Your task to perform on an android device: open app "Google Chrome" Image 0: 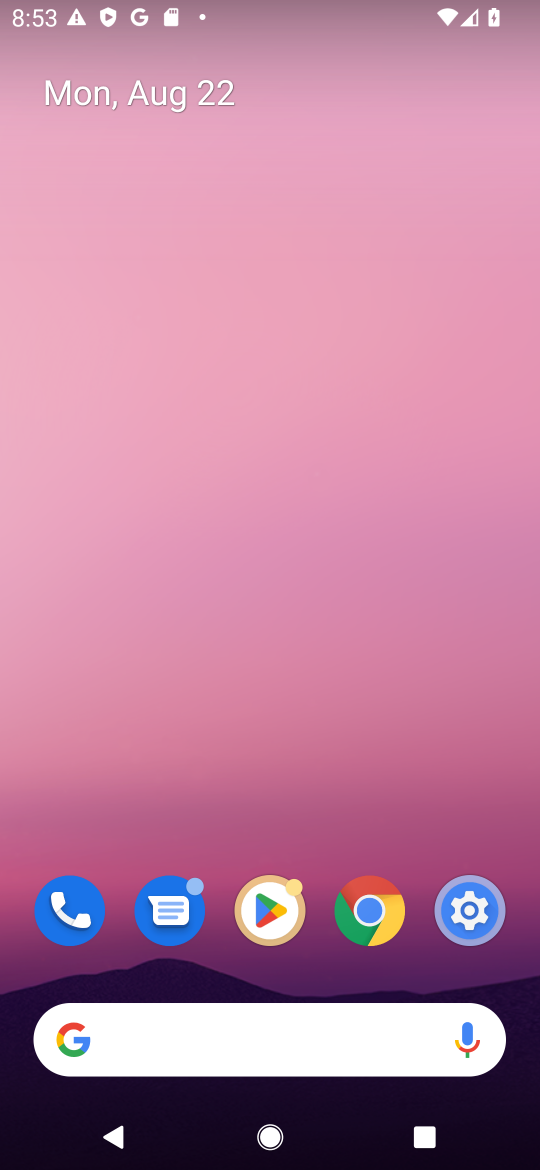
Step 0: click (360, 907)
Your task to perform on an android device: open app "Google Chrome" Image 1: 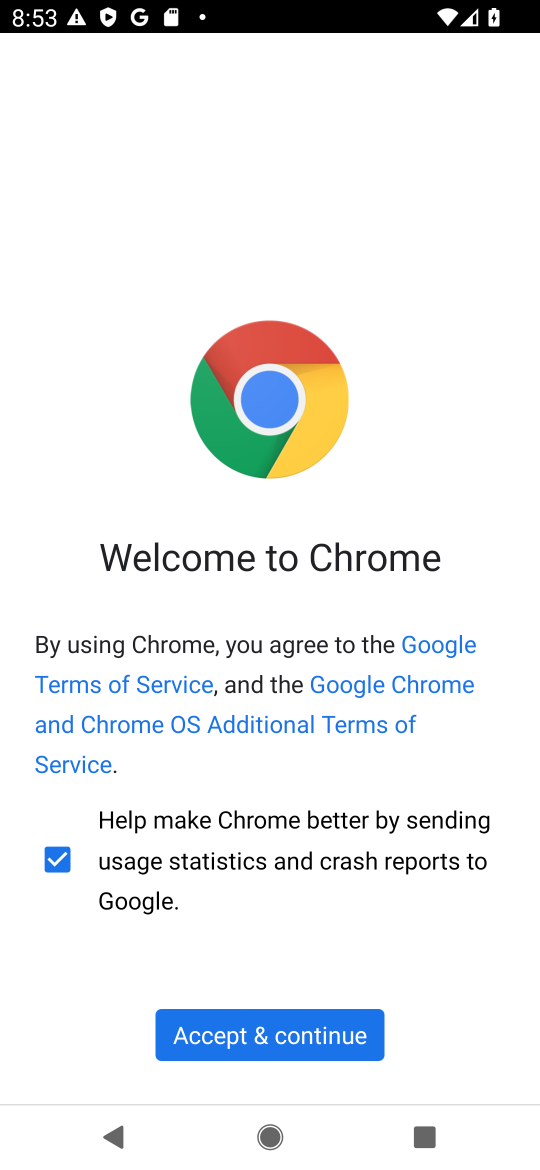
Step 1: click (306, 1046)
Your task to perform on an android device: open app "Google Chrome" Image 2: 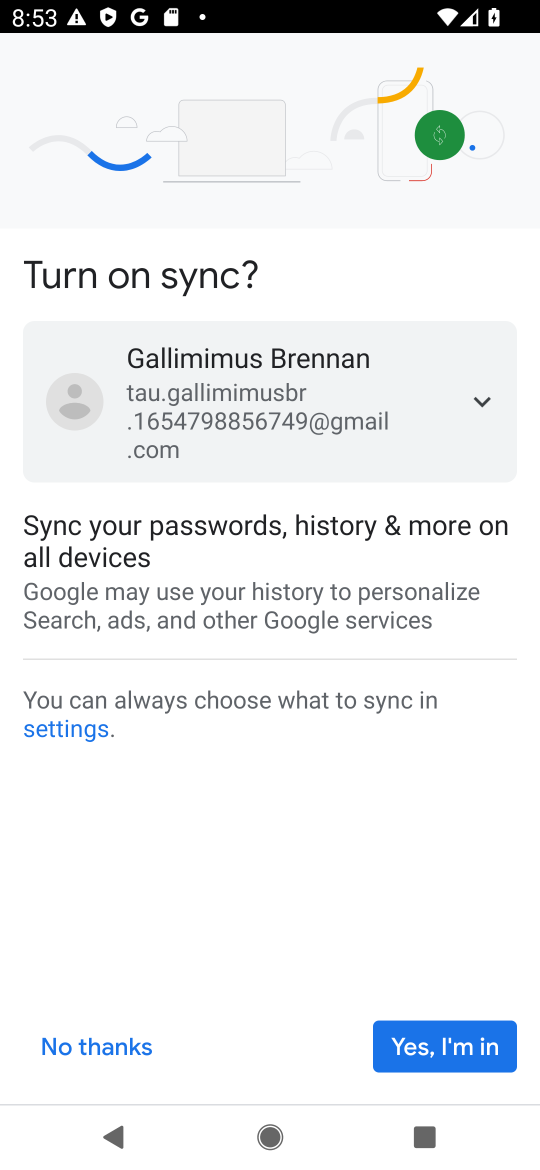
Step 2: click (393, 1034)
Your task to perform on an android device: open app "Google Chrome" Image 3: 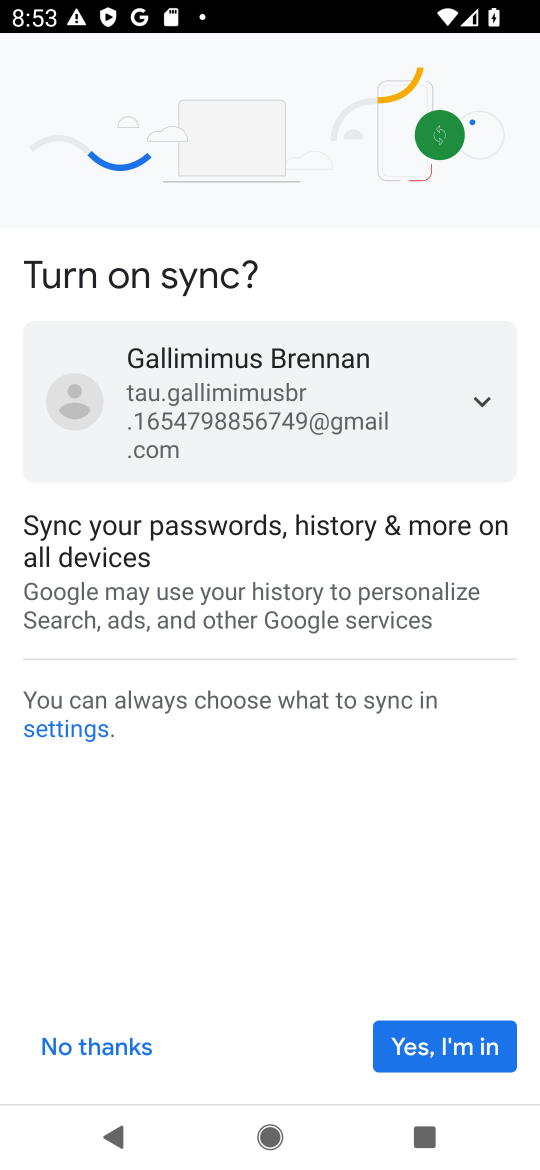
Step 3: click (438, 1051)
Your task to perform on an android device: open app "Google Chrome" Image 4: 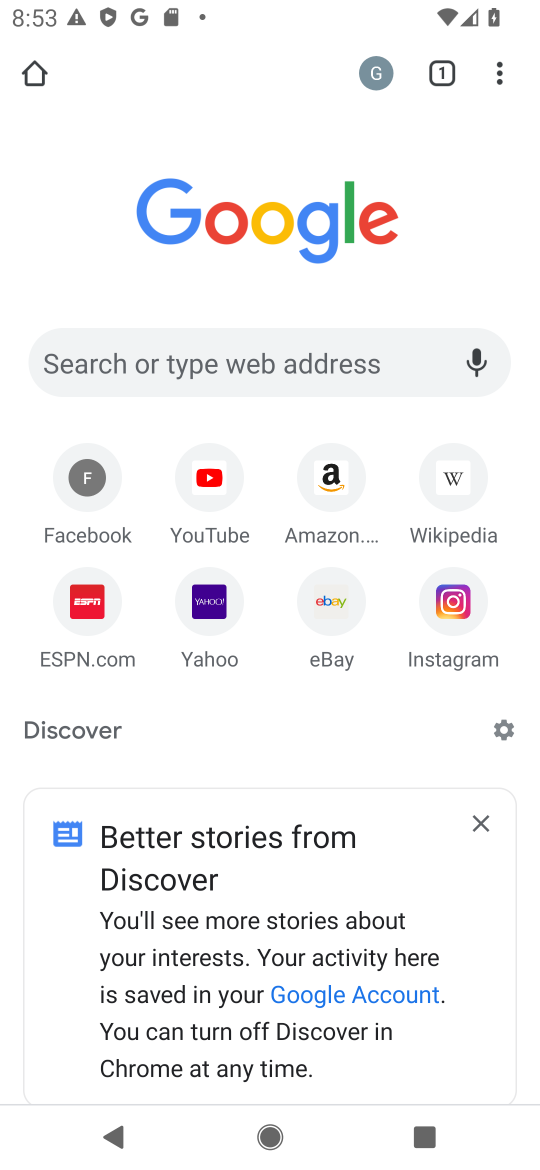
Step 4: task complete